Your task to perform on an android device: Clear all items from cart on amazon. Search for apple airpods on amazon, select the first entry, and add it to the cart. Image 0: 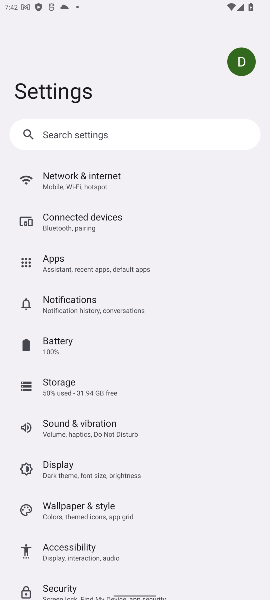
Step 0: press home button
Your task to perform on an android device: Clear all items from cart on amazon. Search for apple airpods on amazon, select the first entry, and add it to the cart. Image 1: 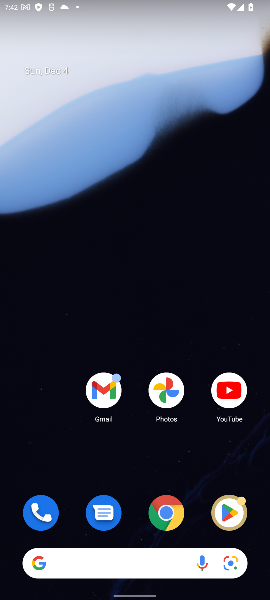
Step 1: click (168, 497)
Your task to perform on an android device: Clear all items from cart on amazon. Search for apple airpods on amazon, select the first entry, and add it to the cart. Image 2: 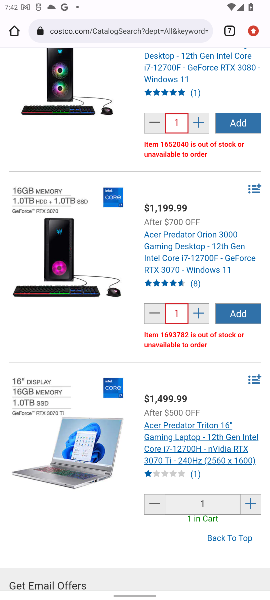
Step 2: click (227, 30)
Your task to perform on an android device: Clear all items from cart on amazon. Search for apple airpods on amazon, select the first entry, and add it to the cart. Image 3: 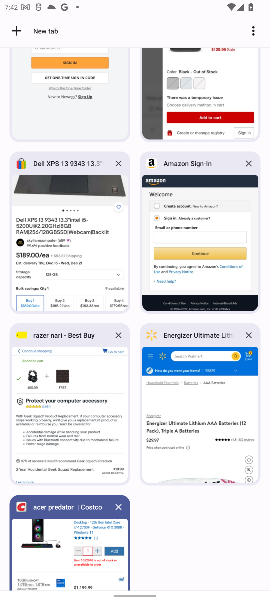
Step 3: click (182, 234)
Your task to perform on an android device: Clear all items from cart on amazon. Search for apple airpods on amazon, select the first entry, and add it to the cart. Image 4: 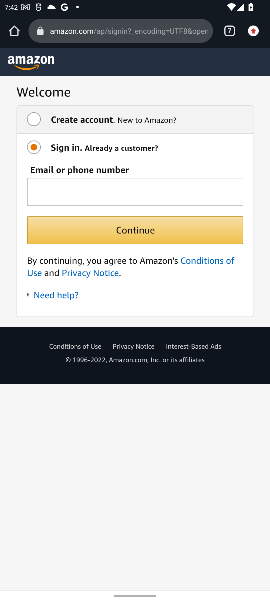
Step 4: press back button
Your task to perform on an android device: Clear all items from cart on amazon. Search for apple airpods on amazon, select the first entry, and add it to the cart. Image 5: 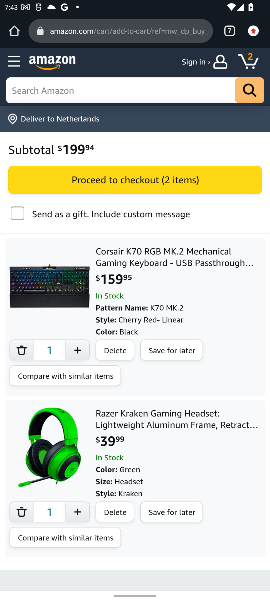
Step 5: click (167, 99)
Your task to perform on an android device: Clear all items from cart on amazon. Search for apple airpods on amazon, select the first entry, and add it to the cart. Image 6: 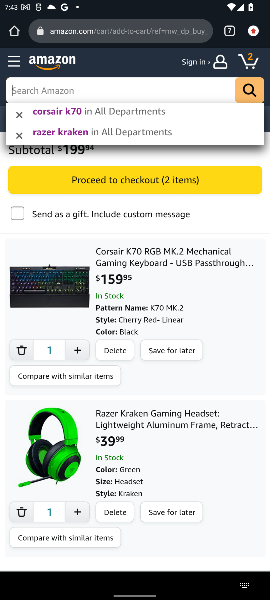
Step 6: type "apple airpods"
Your task to perform on an android device: Clear all items from cart on amazon. Search for apple airpods on amazon, select the first entry, and add it to the cart. Image 7: 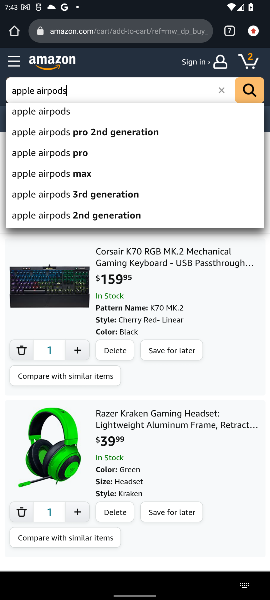
Step 7: click (45, 112)
Your task to perform on an android device: Clear all items from cart on amazon. Search for apple airpods on amazon, select the first entry, and add it to the cart. Image 8: 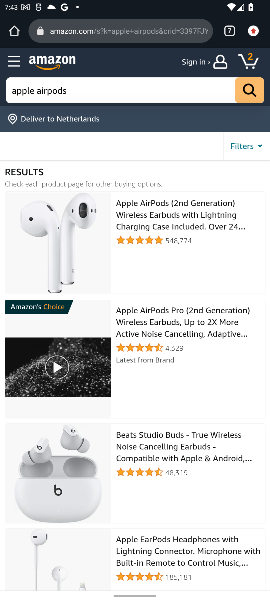
Step 8: click (142, 213)
Your task to perform on an android device: Clear all items from cart on amazon. Search for apple airpods on amazon, select the first entry, and add it to the cart. Image 9: 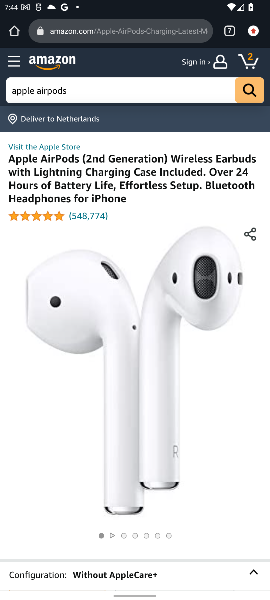
Step 9: drag from (218, 467) to (233, 299)
Your task to perform on an android device: Clear all items from cart on amazon. Search for apple airpods on amazon, select the first entry, and add it to the cart. Image 10: 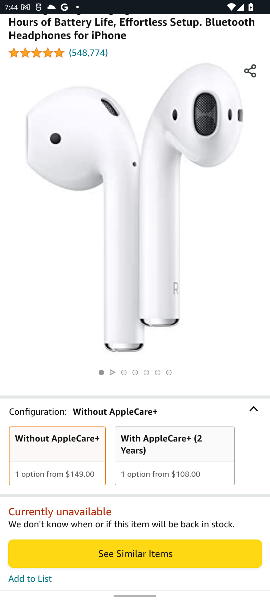
Step 10: click (161, 550)
Your task to perform on an android device: Clear all items from cart on amazon. Search for apple airpods on amazon, select the first entry, and add it to the cart. Image 11: 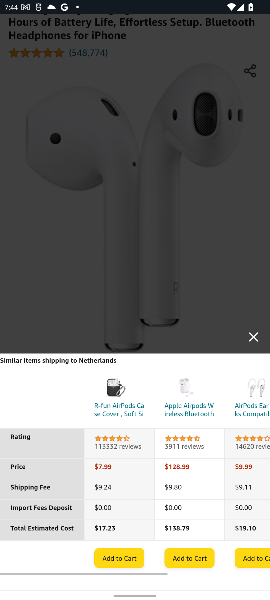
Step 11: click (195, 558)
Your task to perform on an android device: Clear all items from cart on amazon. Search for apple airpods on amazon, select the first entry, and add it to the cart. Image 12: 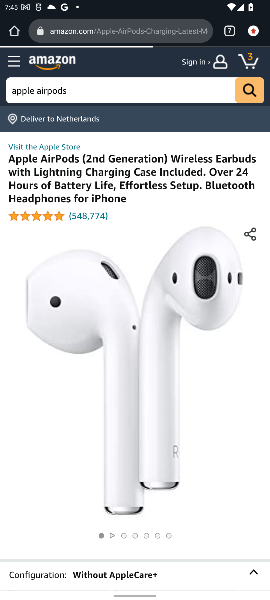
Step 12: click (253, 61)
Your task to perform on an android device: Clear all items from cart on amazon. Search for apple airpods on amazon, select the first entry, and add it to the cart. Image 13: 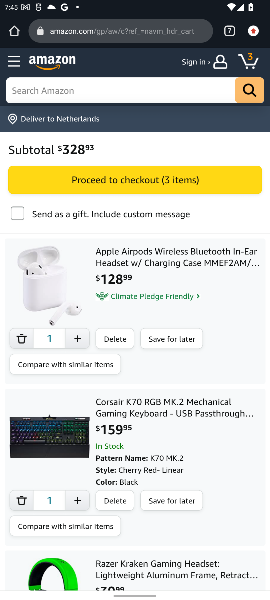
Step 13: click (113, 496)
Your task to perform on an android device: Clear all items from cart on amazon. Search for apple airpods on amazon, select the first entry, and add it to the cart. Image 14: 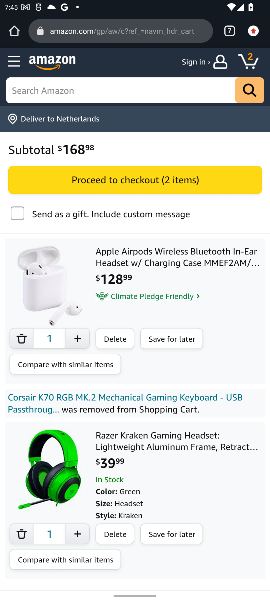
Step 14: click (109, 535)
Your task to perform on an android device: Clear all items from cart on amazon. Search for apple airpods on amazon, select the first entry, and add it to the cart. Image 15: 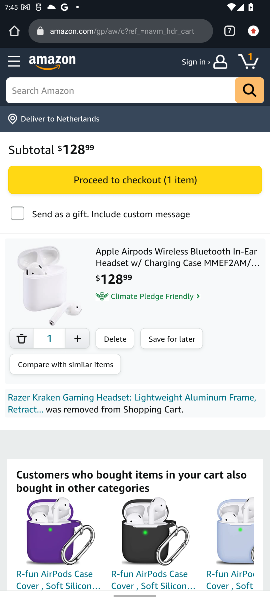
Step 15: task complete